Your task to perform on an android device: Open location settings Image 0: 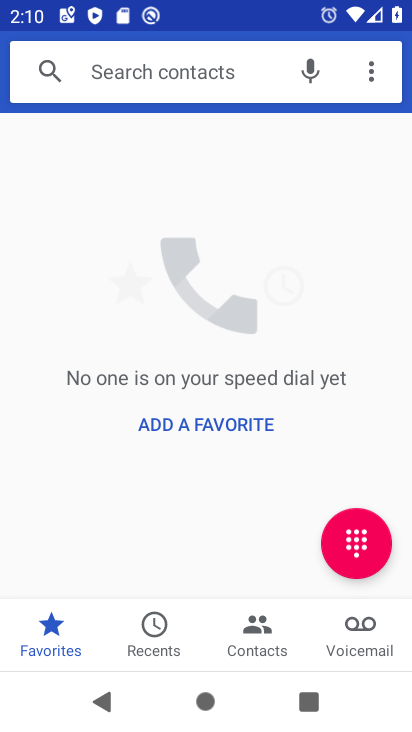
Step 0: press home button
Your task to perform on an android device: Open location settings Image 1: 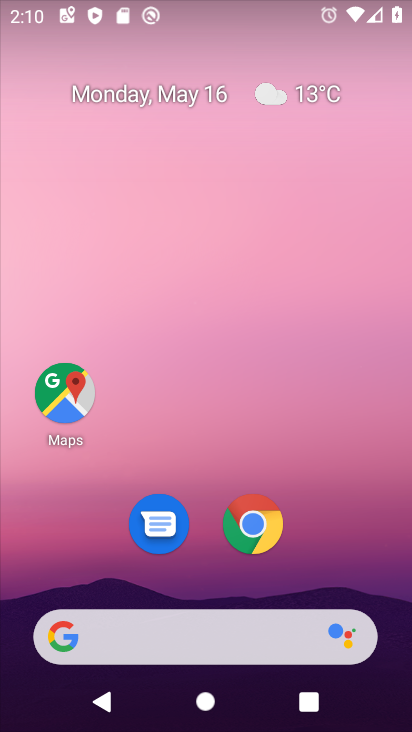
Step 1: drag from (188, 427) to (201, 36)
Your task to perform on an android device: Open location settings Image 2: 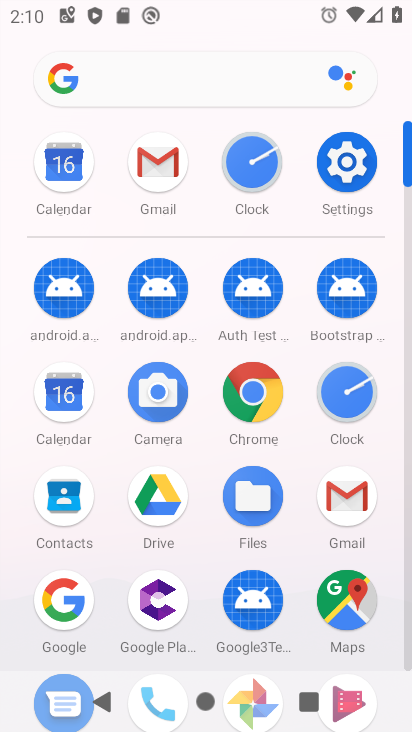
Step 2: click (350, 167)
Your task to perform on an android device: Open location settings Image 3: 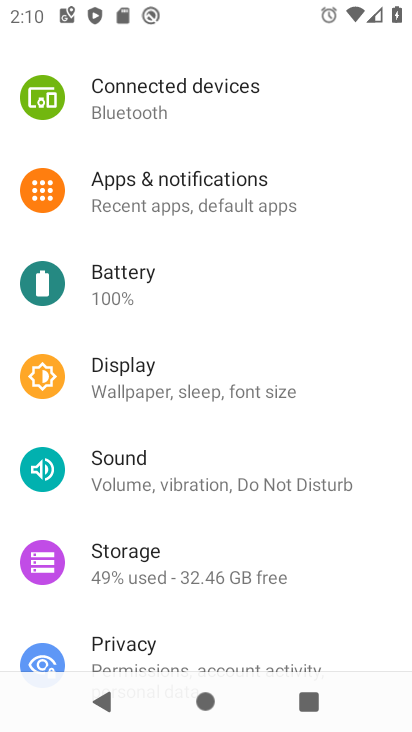
Step 3: drag from (247, 321) to (250, 564)
Your task to perform on an android device: Open location settings Image 4: 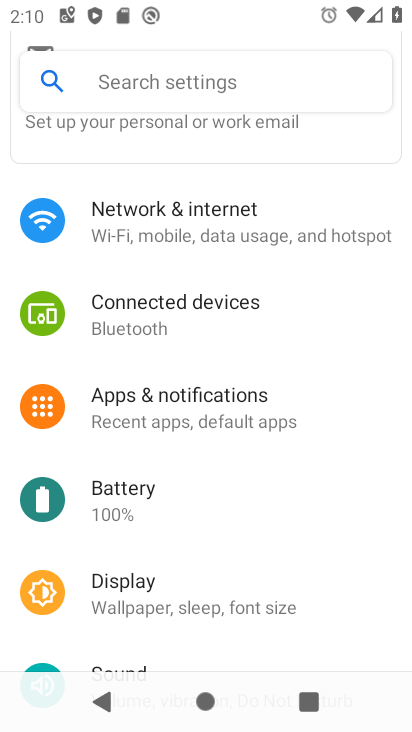
Step 4: drag from (253, 577) to (251, 163)
Your task to perform on an android device: Open location settings Image 5: 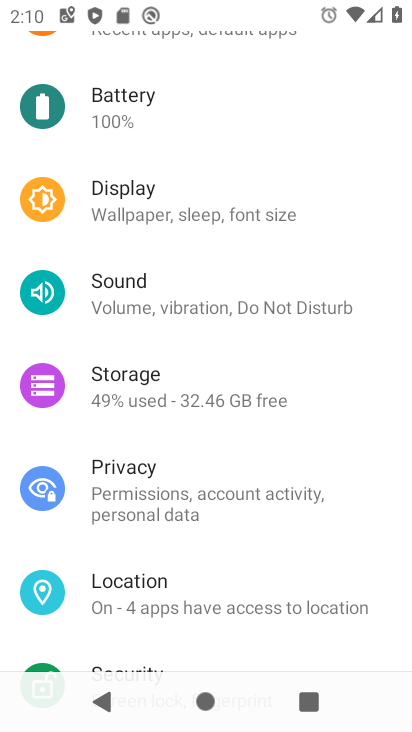
Step 5: click (211, 591)
Your task to perform on an android device: Open location settings Image 6: 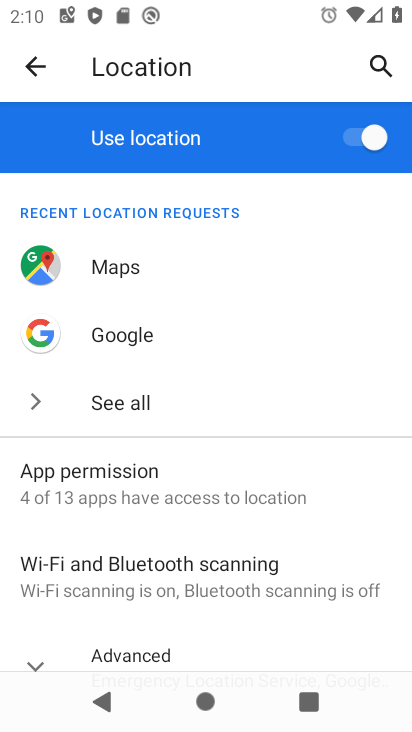
Step 6: task complete